Your task to perform on an android device: Go to Google Image 0: 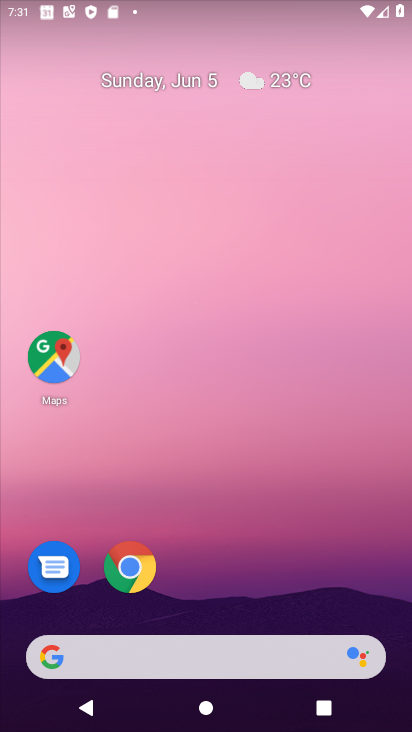
Step 0: drag from (396, 642) to (284, 23)
Your task to perform on an android device: Go to Google Image 1: 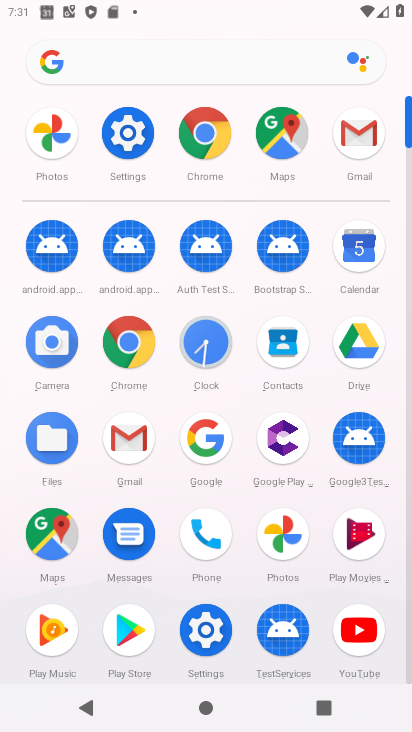
Step 1: click (210, 452)
Your task to perform on an android device: Go to Google Image 2: 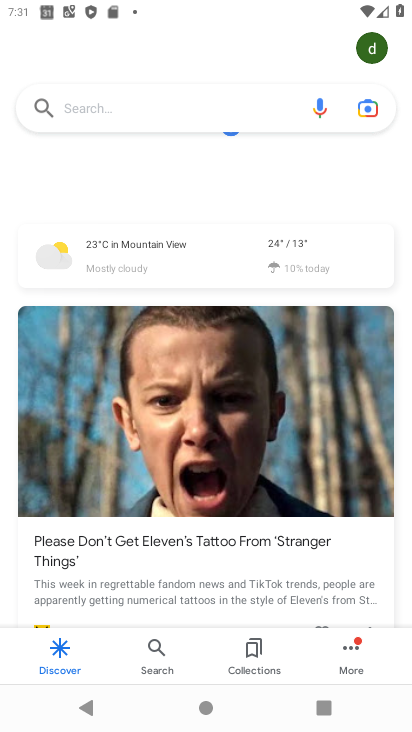
Step 2: task complete